Your task to perform on an android device: delete location history Image 0: 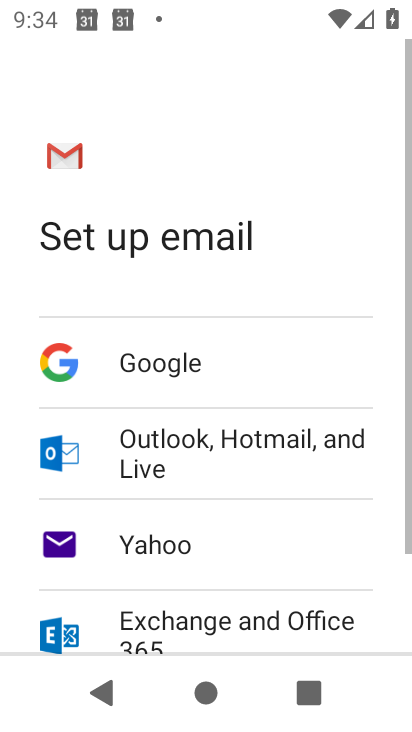
Step 0: press home button
Your task to perform on an android device: delete location history Image 1: 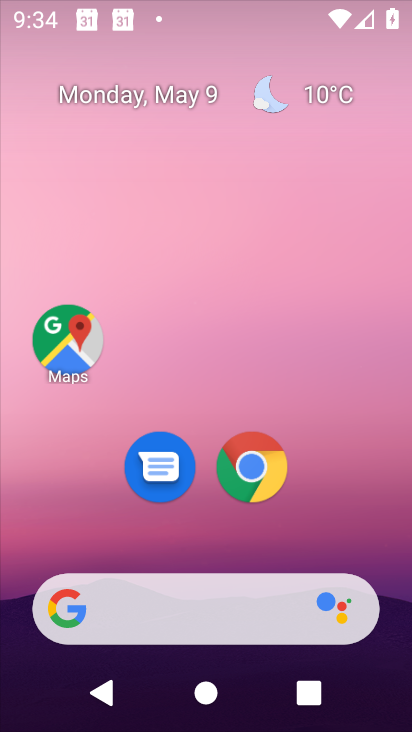
Step 1: drag from (324, 507) to (347, 690)
Your task to perform on an android device: delete location history Image 2: 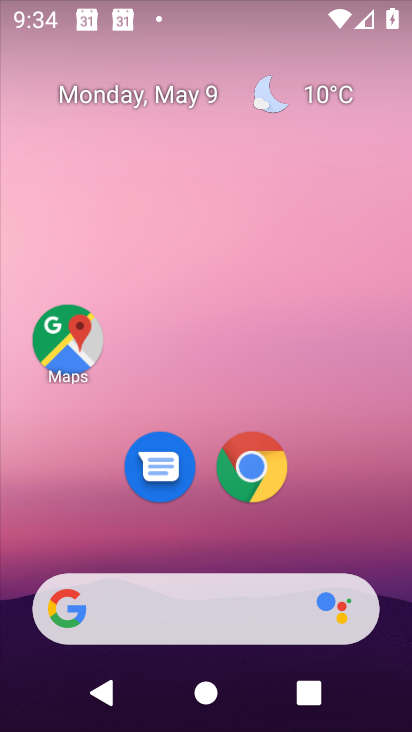
Step 2: click (58, 345)
Your task to perform on an android device: delete location history Image 3: 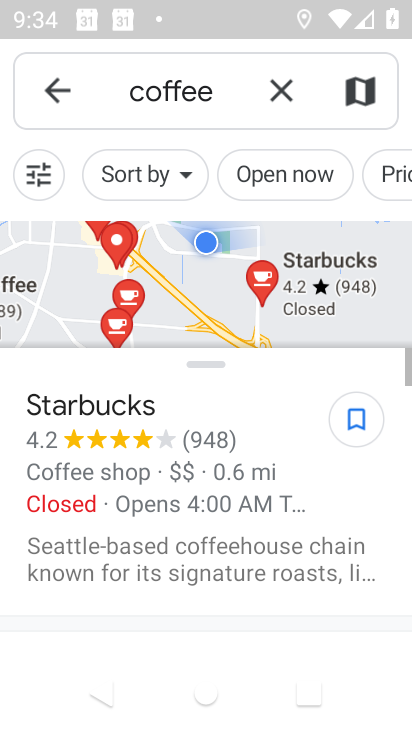
Step 3: click (291, 92)
Your task to perform on an android device: delete location history Image 4: 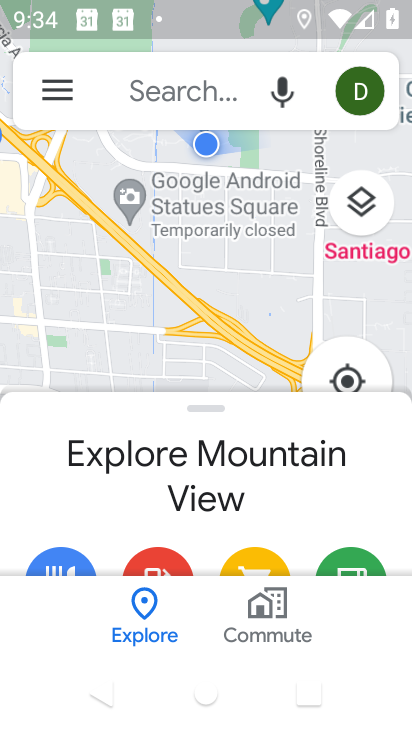
Step 4: click (68, 99)
Your task to perform on an android device: delete location history Image 5: 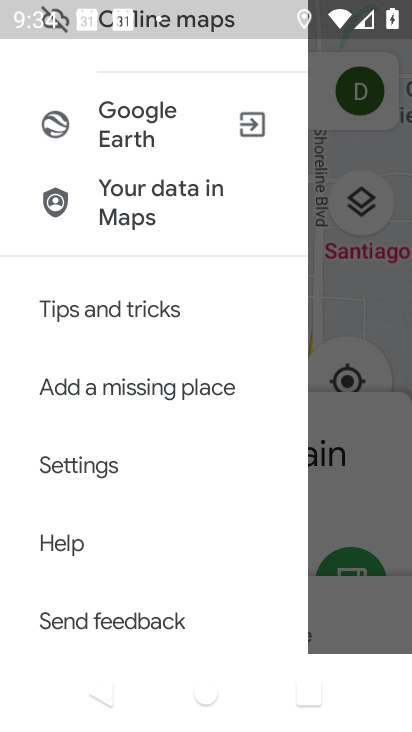
Step 5: drag from (225, 327) to (213, 731)
Your task to perform on an android device: delete location history Image 6: 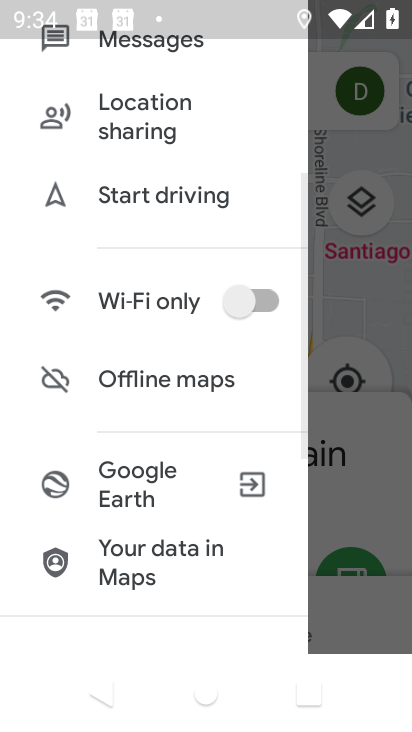
Step 6: drag from (173, 195) to (146, 720)
Your task to perform on an android device: delete location history Image 7: 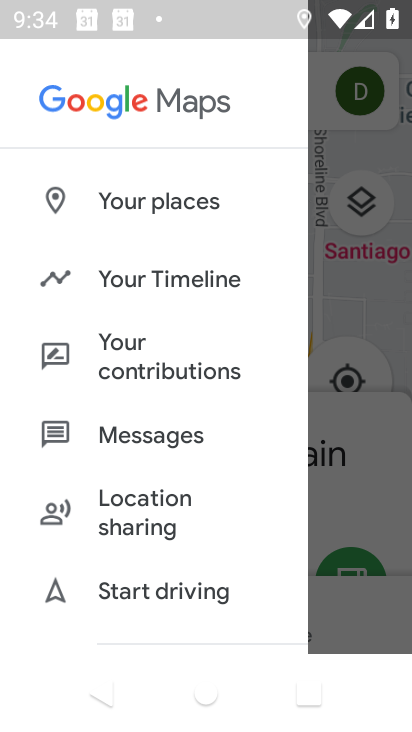
Step 7: click (141, 294)
Your task to perform on an android device: delete location history Image 8: 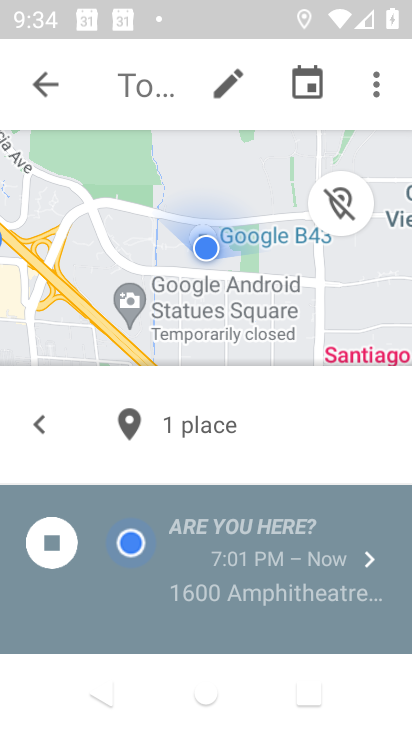
Step 8: click (374, 87)
Your task to perform on an android device: delete location history Image 9: 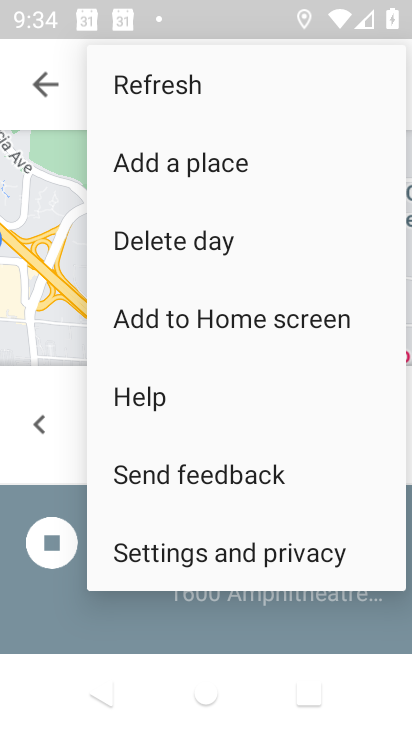
Step 9: click (204, 556)
Your task to perform on an android device: delete location history Image 10: 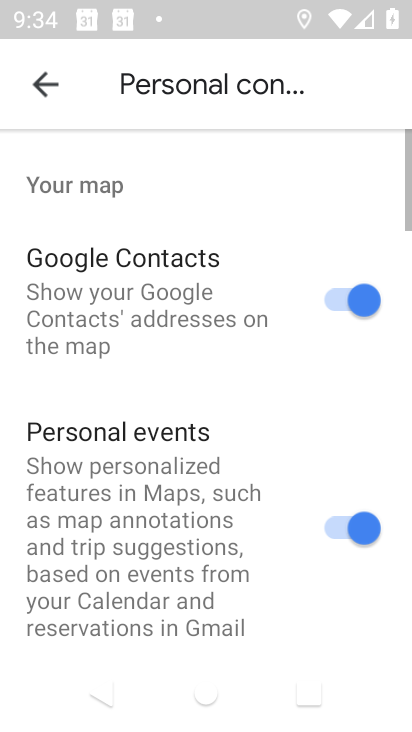
Step 10: drag from (204, 555) to (225, 83)
Your task to perform on an android device: delete location history Image 11: 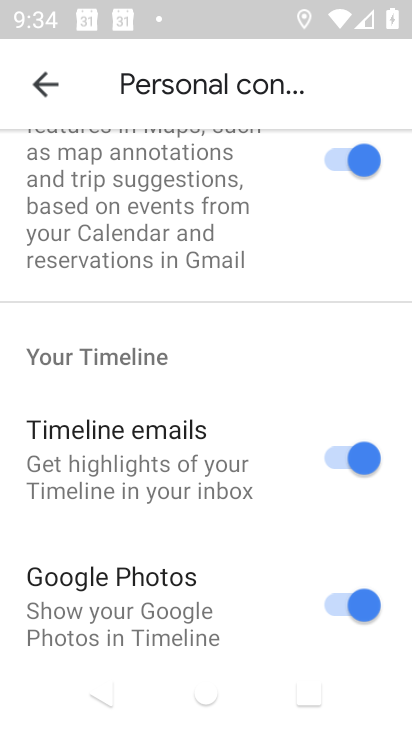
Step 11: drag from (176, 564) to (203, 105)
Your task to perform on an android device: delete location history Image 12: 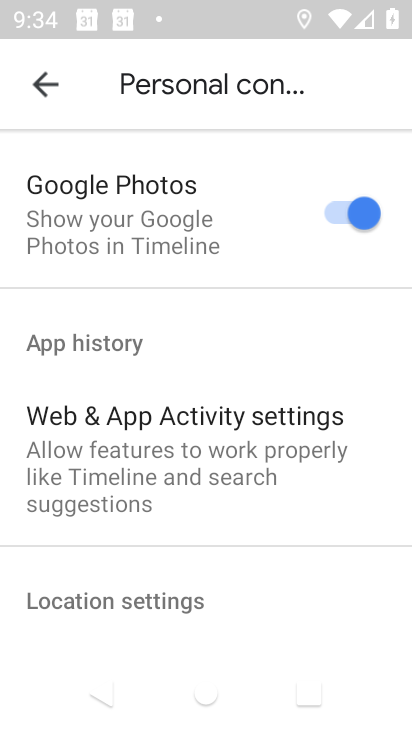
Step 12: drag from (153, 458) to (182, 96)
Your task to perform on an android device: delete location history Image 13: 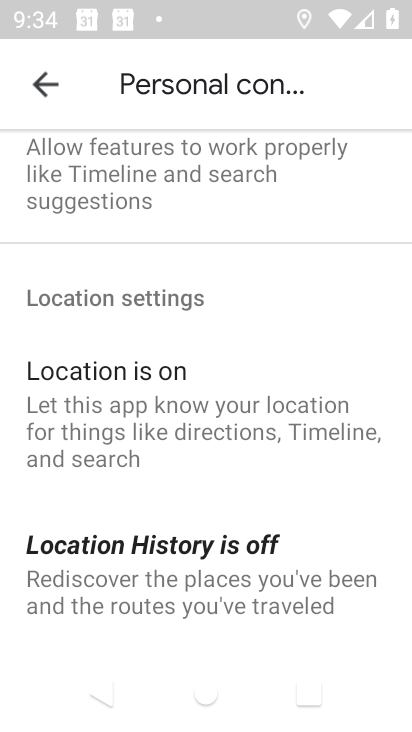
Step 13: drag from (187, 559) to (187, 290)
Your task to perform on an android device: delete location history Image 14: 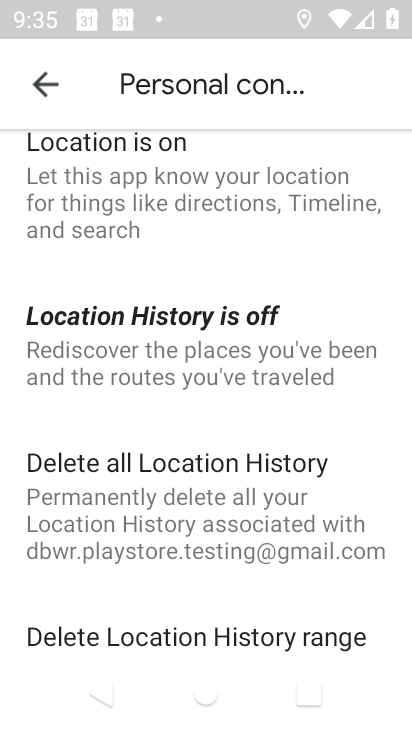
Step 14: click (122, 518)
Your task to perform on an android device: delete location history Image 15: 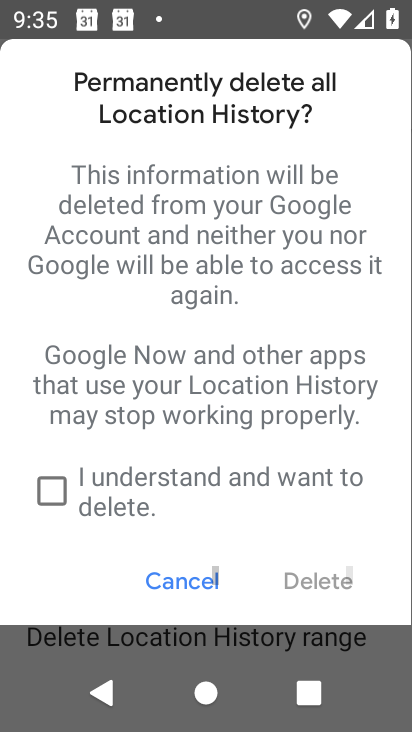
Step 15: click (48, 498)
Your task to perform on an android device: delete location history Image 16: 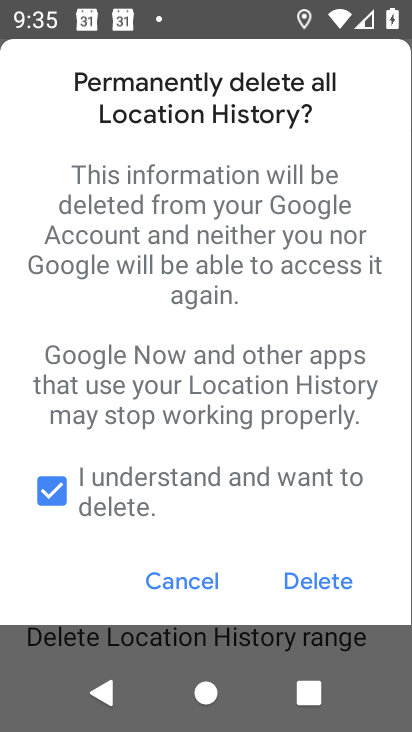
Step 16: click (298, 583)
Your task to perform on an android device: delete location history Image 17: 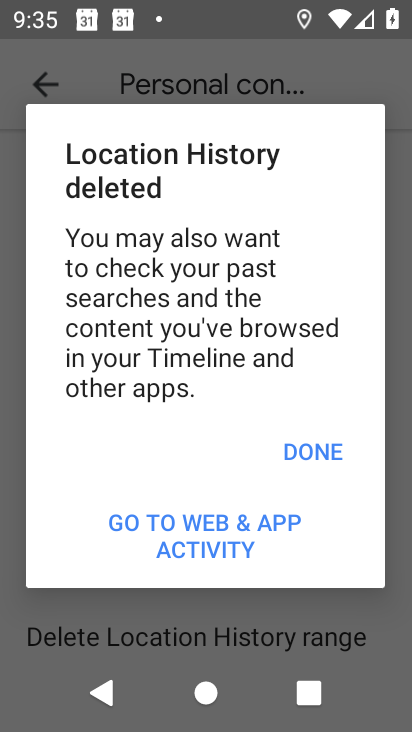
Step 17: click (324, 453)
Your task to perform on an android device: delete location history Image 18: 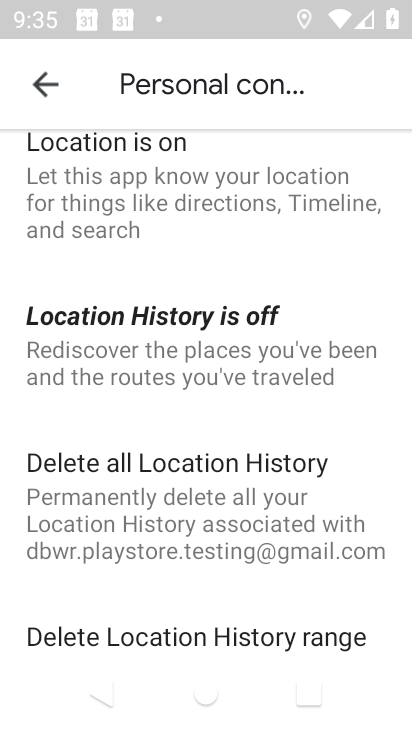
Step 18: task complete